Your task to perform on an android device: Open Google Chrome Image 0: 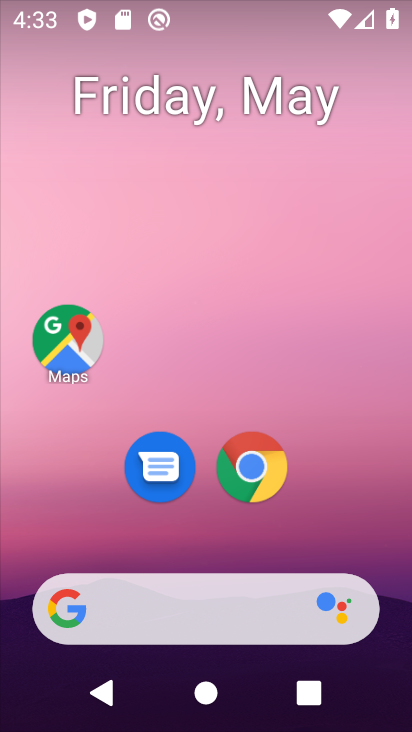
Step 0: click (249, 469)
Your task to perform on an android device: Open Google Chrome Image 1: 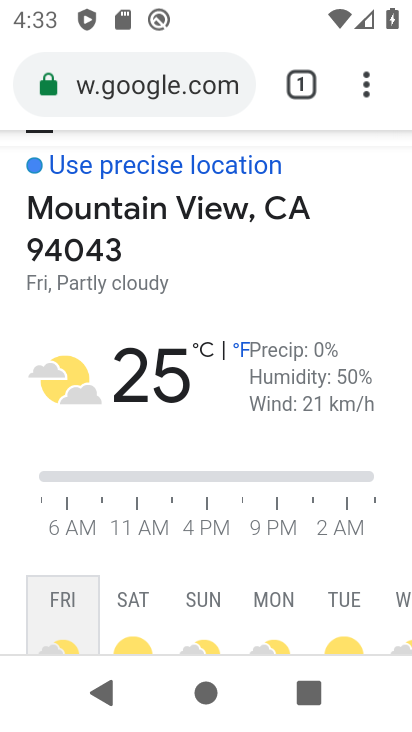
Step 1: task complete